Your task to perform on an android device: turn on data saver in the chrome app Image 0: 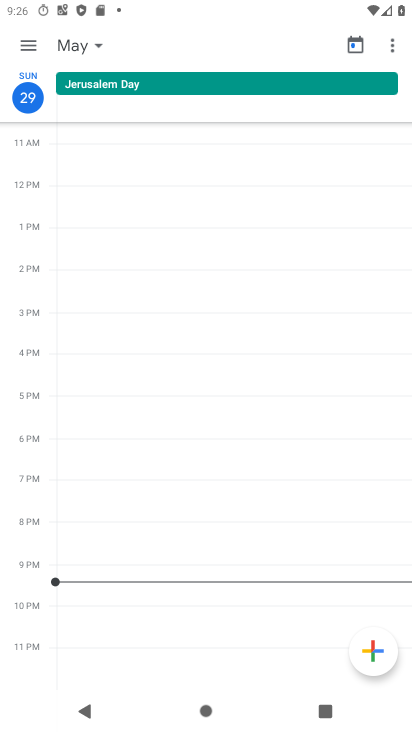
Step 0: press home button
Your task to perform on an android device: turn on data saver in the chrome app Image 1: 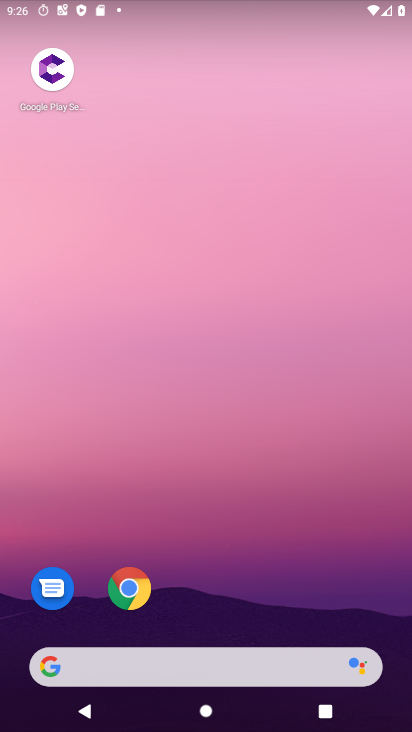
Step 1: click (136, 590)
Your task to perform on an android device: turn on data saver in the chrome app Image 2: 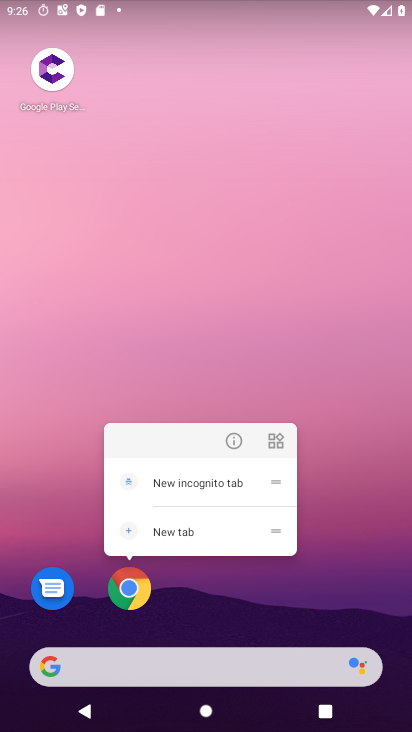
Step 2: click (152, 582)
Your task to perform on an android device: turn on data saver in the chrome app Image 3: 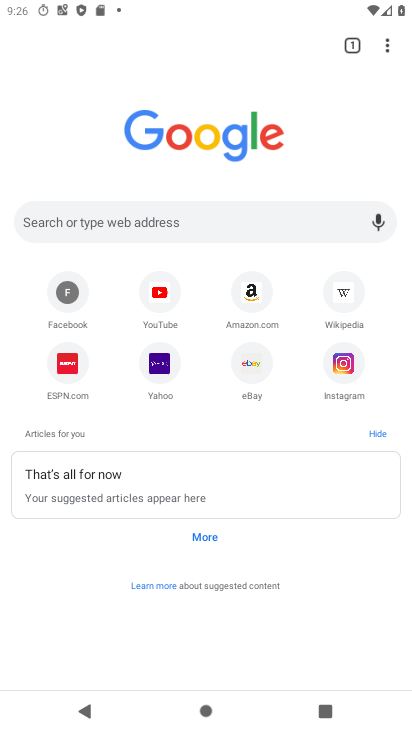
Step 3: click (381, 44)
Your task to perform on an android device: turn on data saver in the chrome app Image 4: 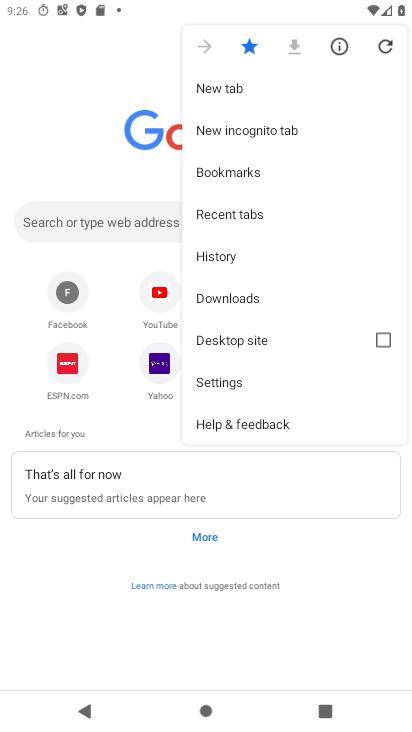
Step 4: click (230, 379)
Your task to perform on an android device: turn on data saver in the chrome app Image 5: 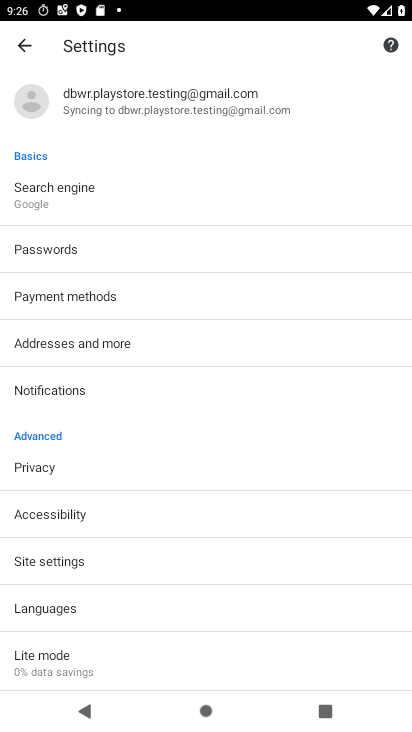
Step 5: drag from (79, 596) to (119, 446)
Your task to perform on an android device: turn on data saver in the chrome app Image 6: 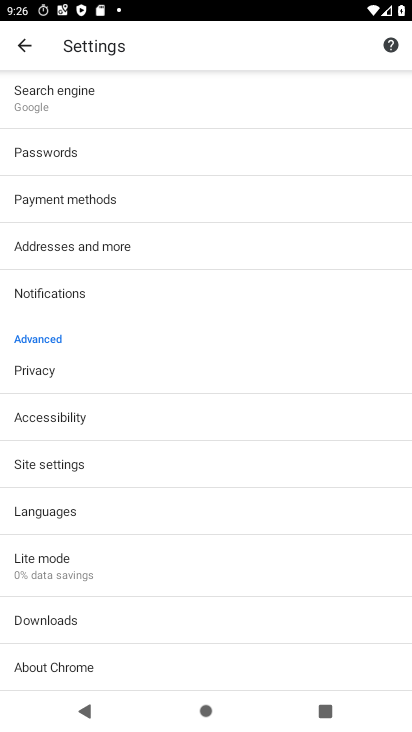
Step 6: click (87, 560)
Your task to perform on an android device: turn on data saver in the chrome app Image 7: 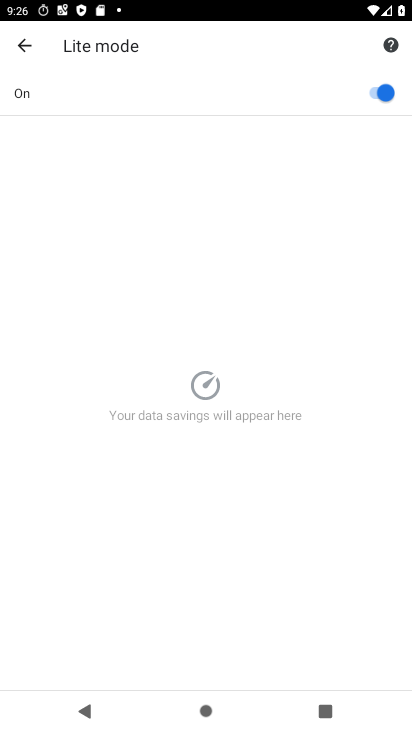
Step 7: task complete